Your task to perform on an android device: snooze an email in the gmail app Image 0: 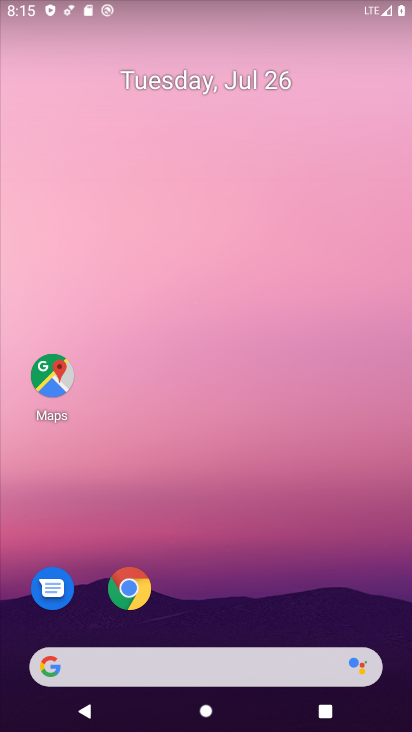
Step 0: drag from (308, 595) to (287, 180)
Your task to perform on an android device: snooze an email in the gmail app Image 1: 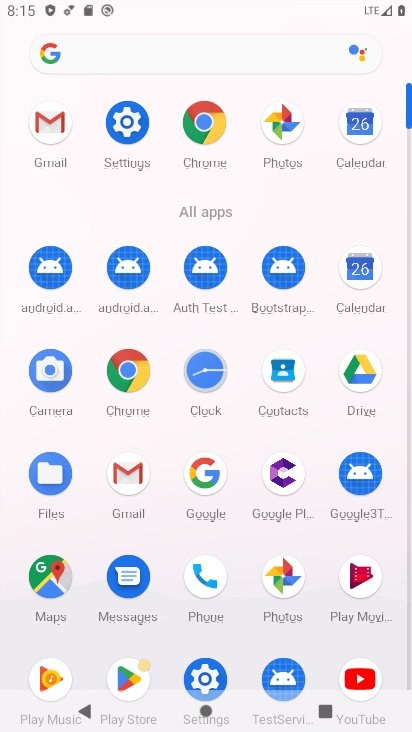
Step 1: click (42, 122)
Your task to perform on an android device: snooze an email in the gmail app Image 2: 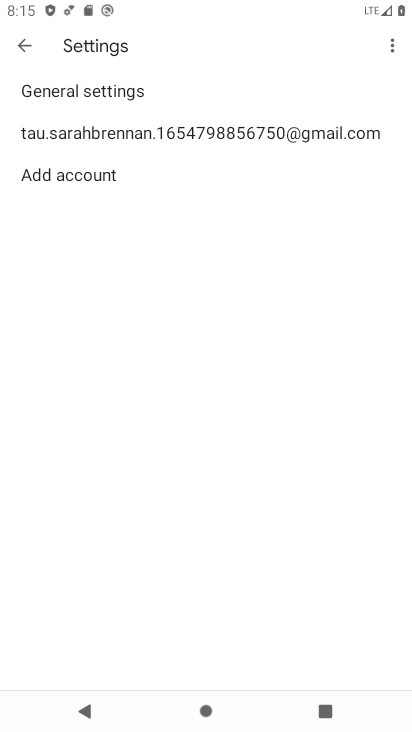
Step 2: click (18, 46)
Your task to perform on an android device: snooze an email in the gmail app Image 3: 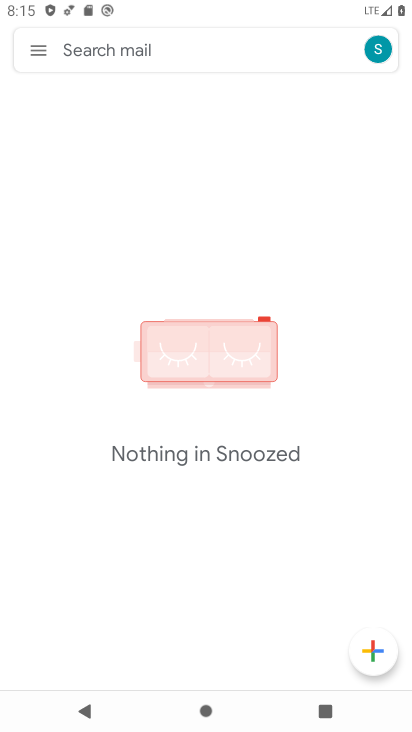
Step 3: click (32, 46)
Your task to perform on an android device: snooze an email in the gmail app Image 4: 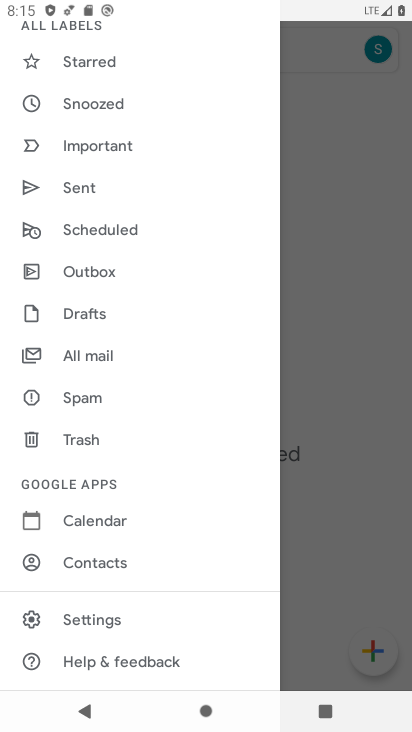
Step 4: click (92, 362)
Your task to perform on an android device: snooze an email in the gmail app Image 5: 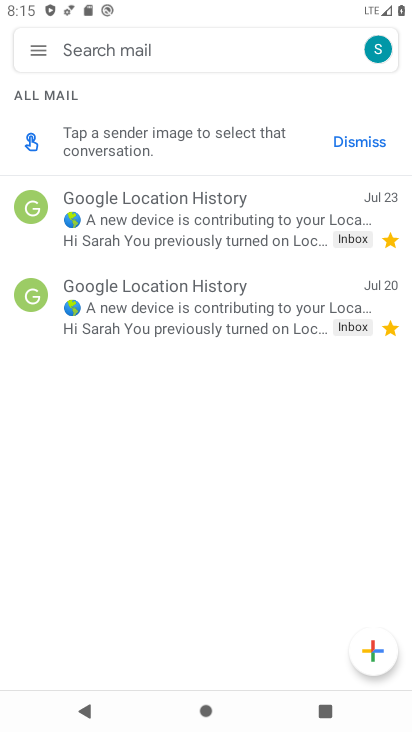
Step 5: click (87, 223)
Your task to perform on an android device: snooze an email in the gmail app Image 6: 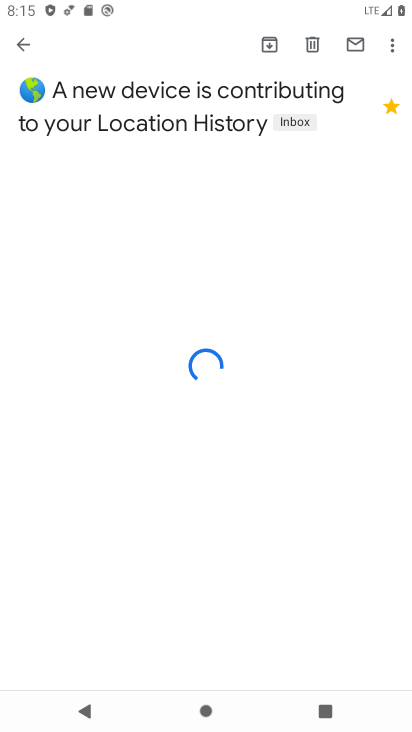
Step 6: click (393, 36)
Your task to perform on an android device: snooze an email in the gmail app Image 7: 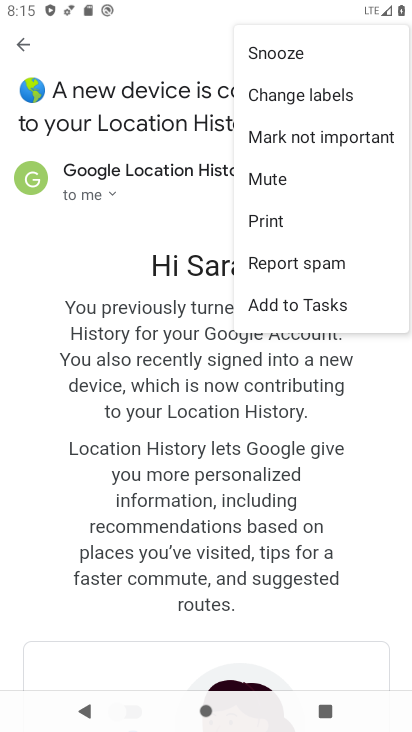
Step 7: click (317, 45)
Your task to perform on an android device: snooze an email in the gmail app Image 8: 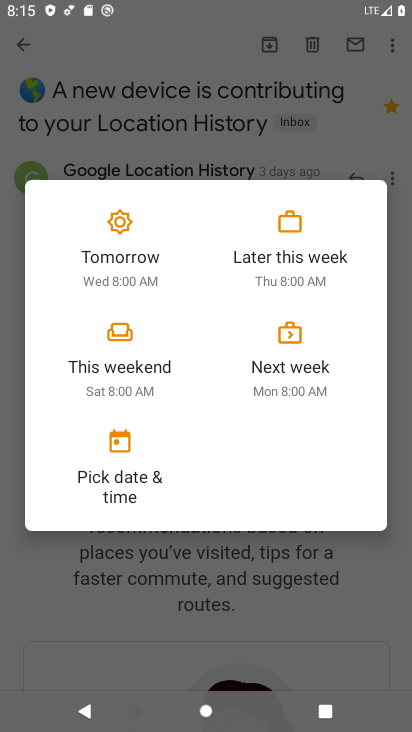
Step 8: click (114, 243)
Your task to perform on an android device: snooze an email in the gmail app Image 9: 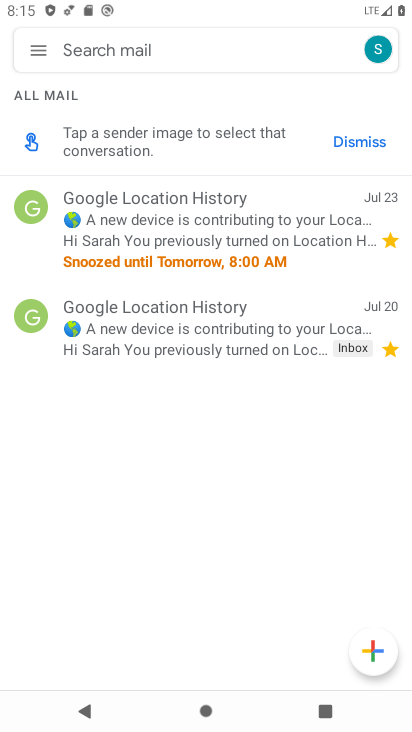
Step 9: task complete